Your task to perform on an android device: Open ESPN.com Image 0: 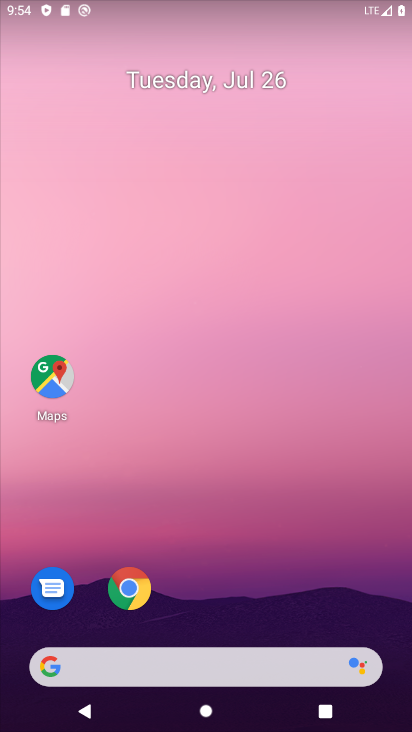
Step 0: click (128, 599)
Your task to perform on an android device: Open ESPN.com Image 1: 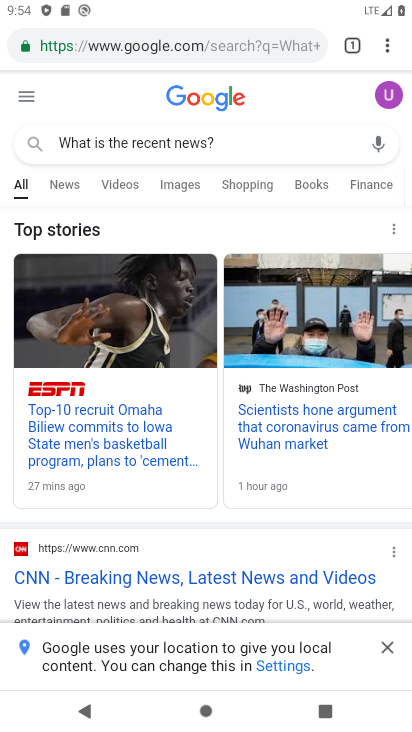
Step 1: click (348, 48)
Your task to perform on an android device: Open ESPN.com Image 2: 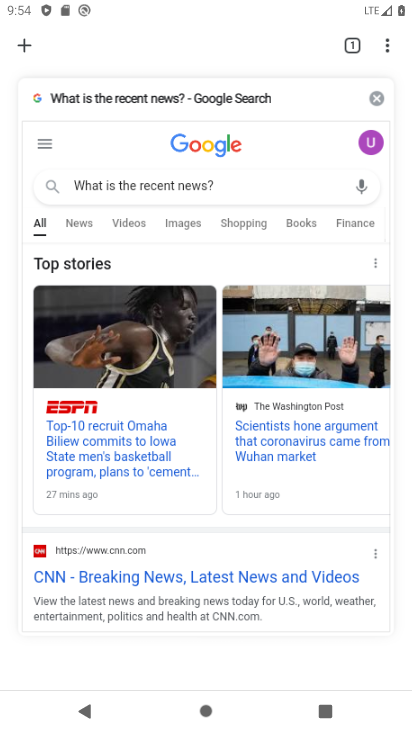
Step 2: click (26, 50)
Your task to perform on an android device: Open ESPN.com Image 3: 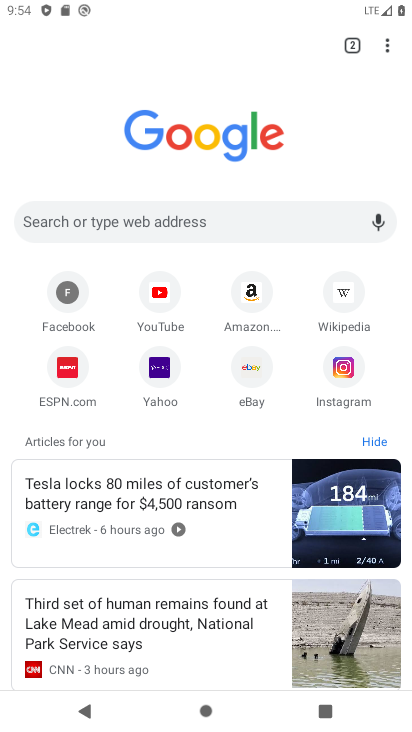
Step 3: click (82, 361)
Your task to perform on an android device: Open ESPN.com Image 4: 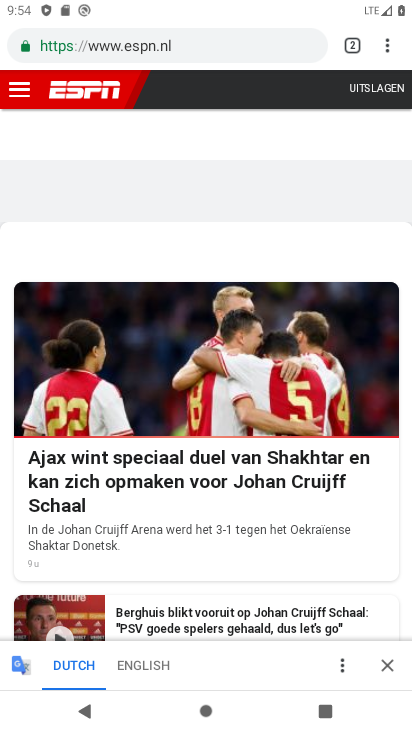
Step 4: task complete